Your task to perform on an android device: check battery use Image 0: 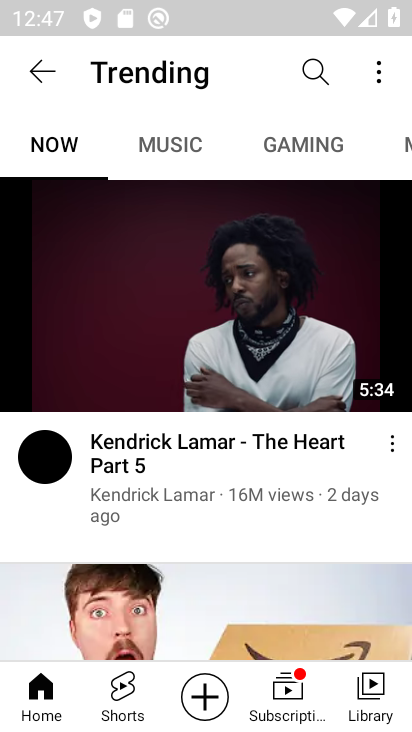
Step 0: press home button
Your task to perform on an android device: check battery use Image 1: 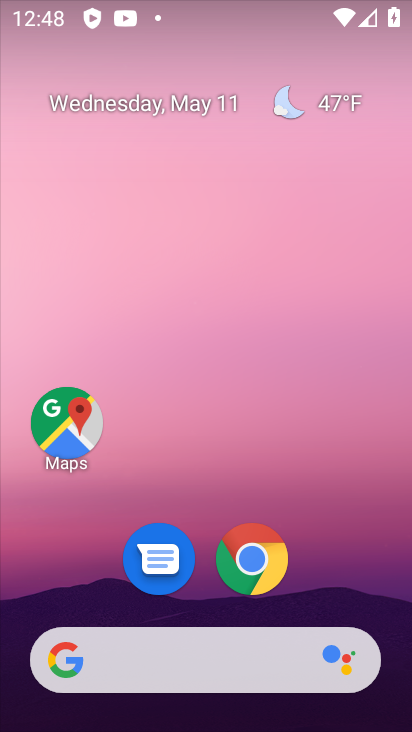
Step 1: drag from (208, 609) to (222, 41)
Your task to perform on an android device: check battery use Image 2: 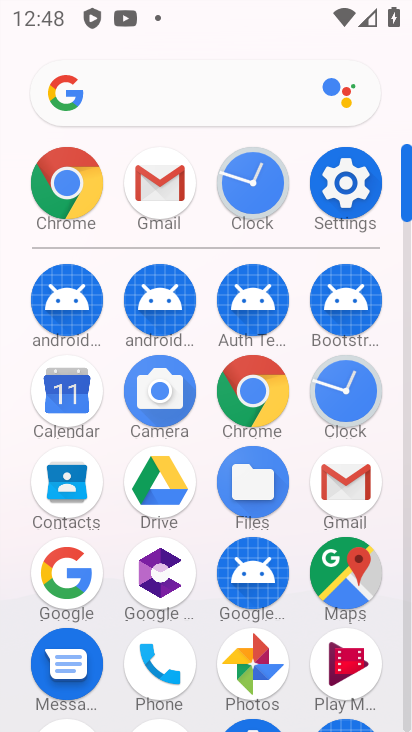
Step 2: click (353, 172)
Your task to perform on an android device: check battery use Image 3: 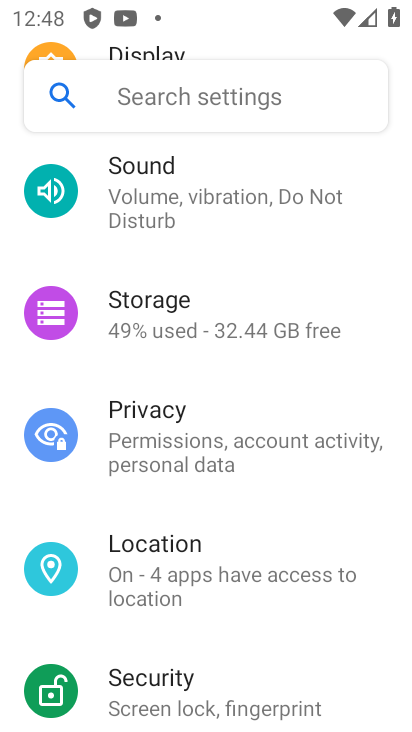
Step 3: drag from (203, 285) to (185, 692)
Your task to perform on an android device: check battery use Image 4: 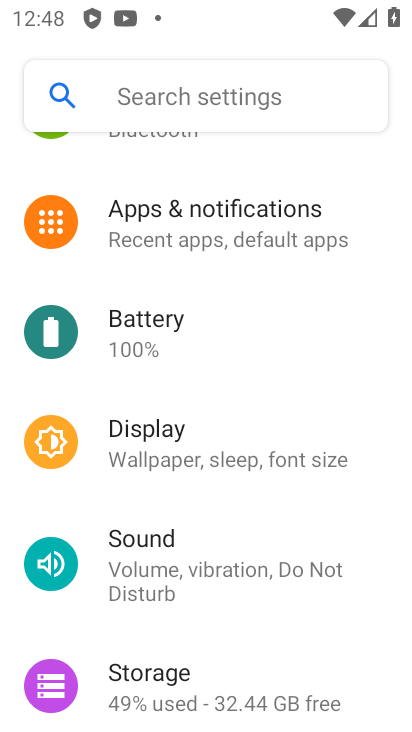
Step 4: click (198, 341)
Your task to perform on an android device: check battery use Image 5: 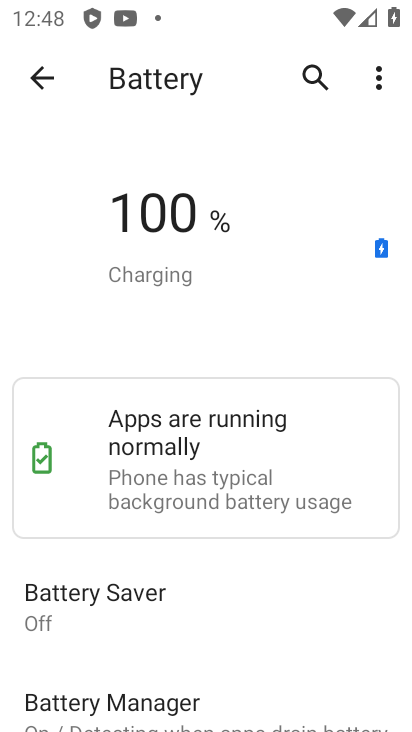
Step 5: click (374, 78)
Your task to perform on an android device: check battery use Image 6: 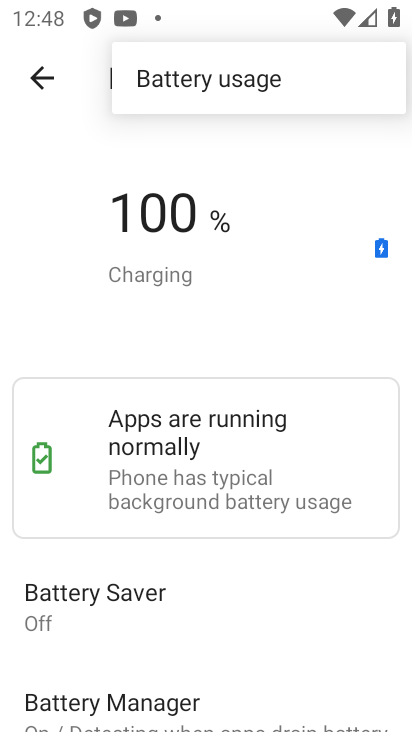
Step 6: click (245, 95)
Your task to perform on an android device: check battery use Image 7: 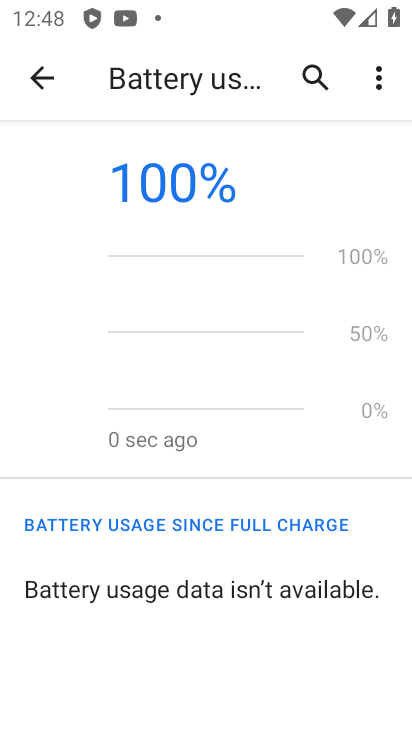
Step 7: task complete